Your task to perform on an android device: turn on showing notifications on the lock screen Image 0: 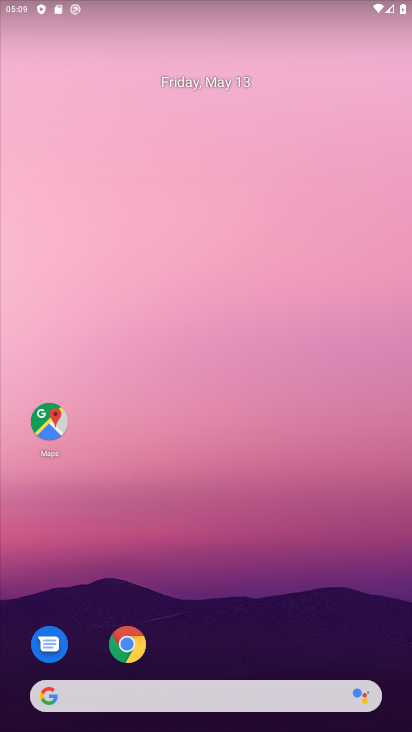
Step 0: drag from (179, 614) to (256, 68)
Your task to perform on an android device: turn on showing notifications on the lock screen Image 1: 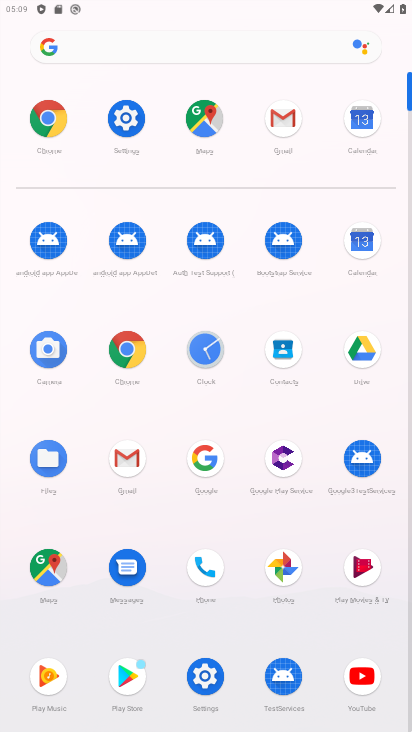
Step 1: click (121, 113)
Your task to perform on an android device: turn on showing notifications on the lock screen Image 2: 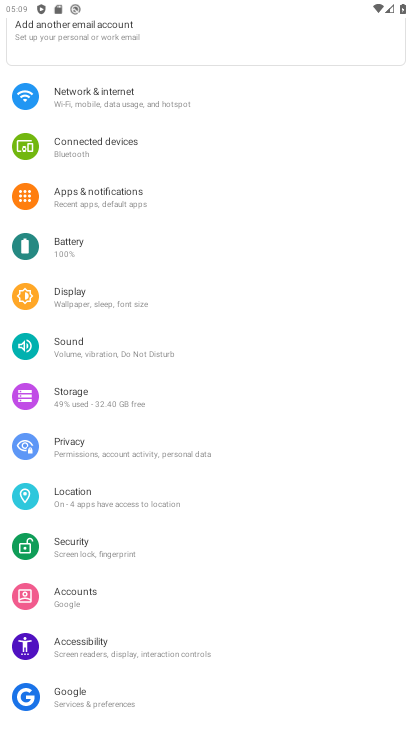
Step 2: click (132, 194)
Your task to perform on an android device: turn on showing notifications on the lock screen Image 3: 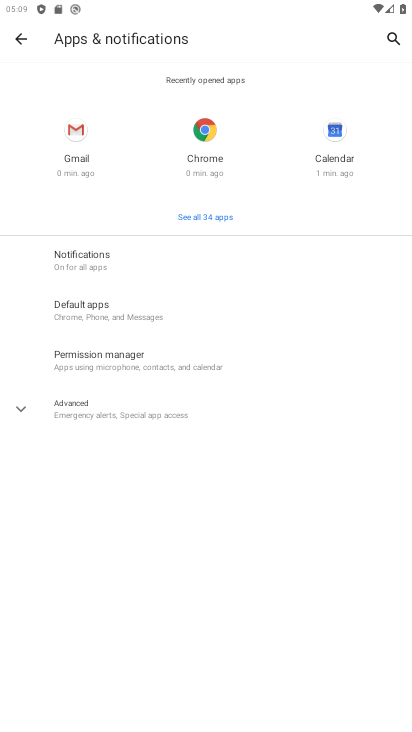
Step 3: click (109, 258)
Your task to perform on an android device: turn on showing notifications on the lock screen Image 4: 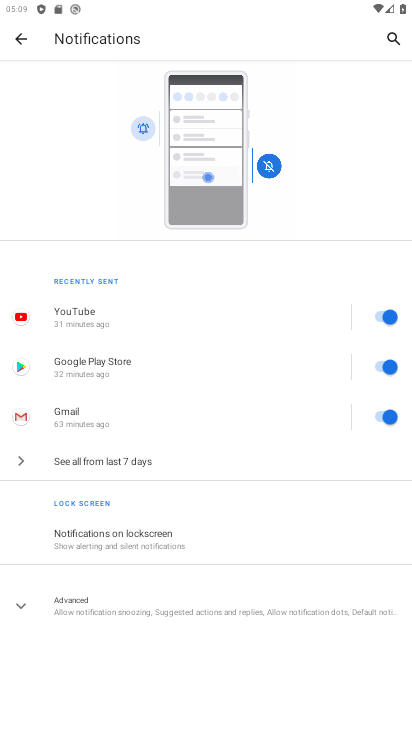
Step 4: click (143, 534)
Your task to perform on an android device: turn on showing notifications on the lock screen Image 5: 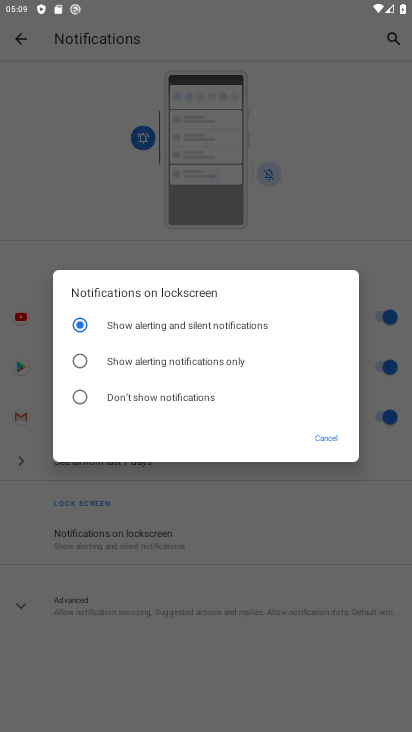
Step 5: click (84, 330)
Your task to perform on an android device: turn on showing notifications on the lock screen Image 6: 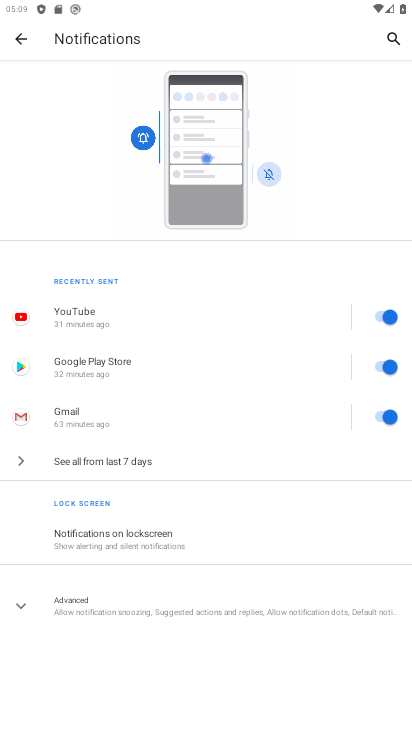
Step 6: task complete